Your task to perform on an android device: check the backup settings in the google photos Image 0: 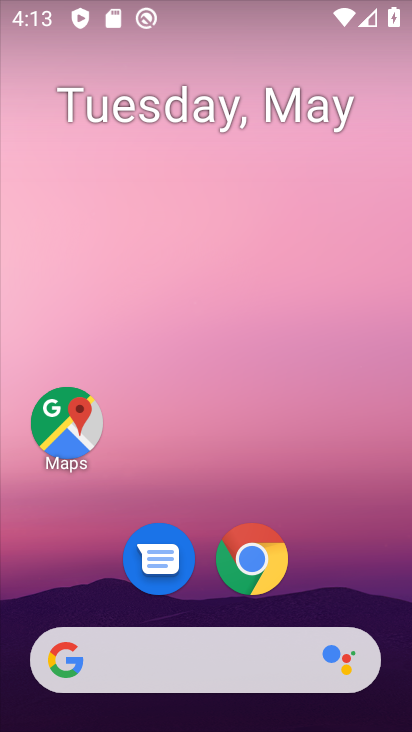
Step 0: press home button
Your task to perform on an android device: check the backup settings in the google photos Image 1: 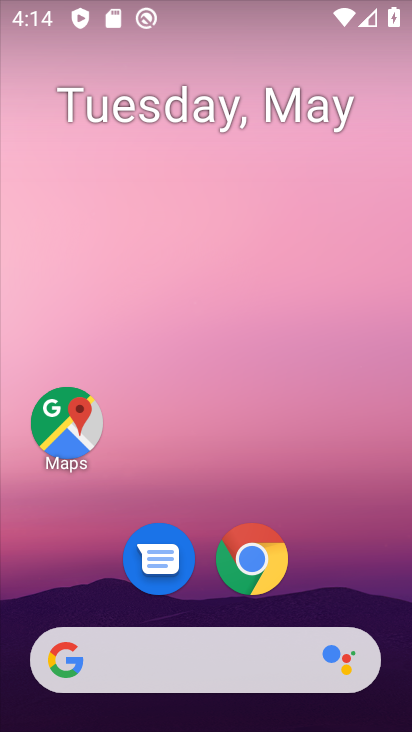
Step 1: drag from (334, 519) to (282, 99)
Your task to perform on an android device: check the backup settings in the google photos Image 2: 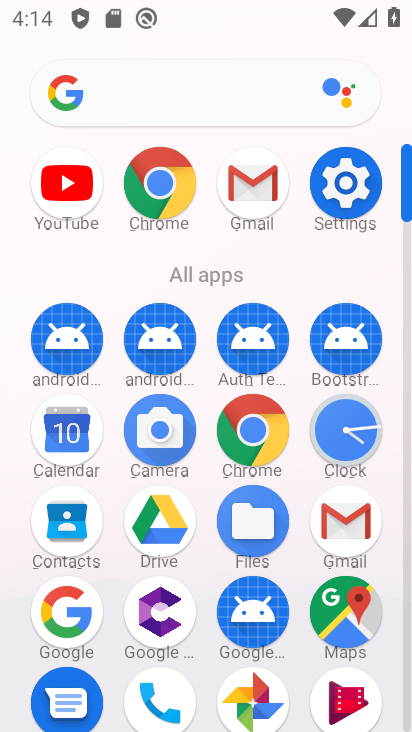
Step 2: drag from (203, 645) to (194, 361)
Your task to perform on an android device: check the backup settings in the google photos Image 3: 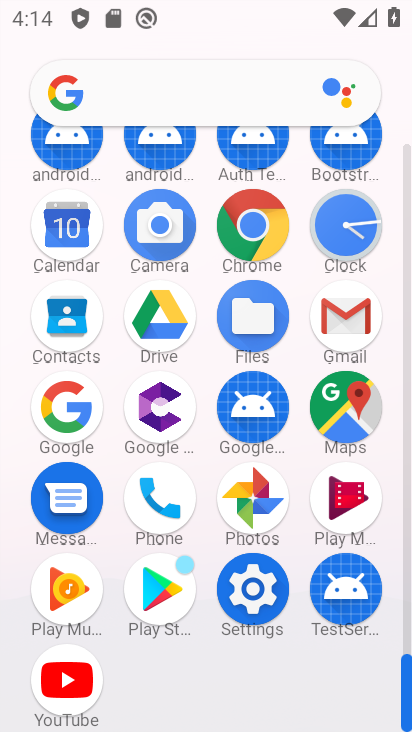
Step 3: click (242, 496)
Your task to perform on an android device: check the backup settings in the google photos Image 4: 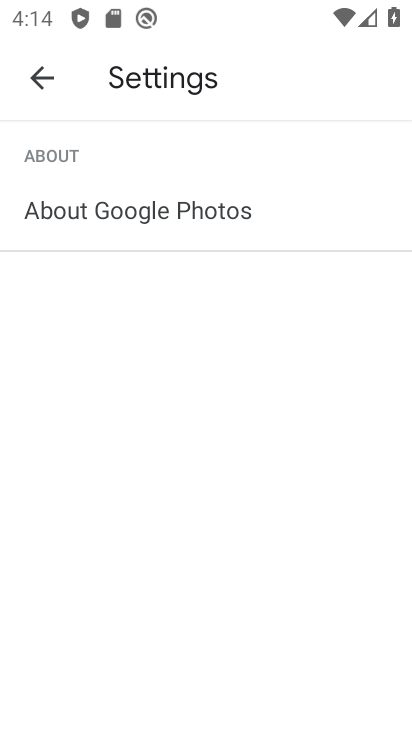
Step 4: click (46, 84)
Your task to perform on an android device: check the backup settings in the google photos Image 5: 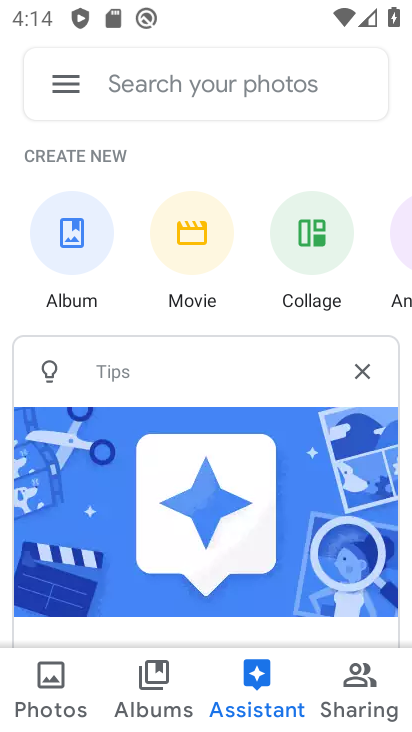
Step 5: click (52, 77)
Your task to perform on an android device: check the backup settings in the google photos Image 6: 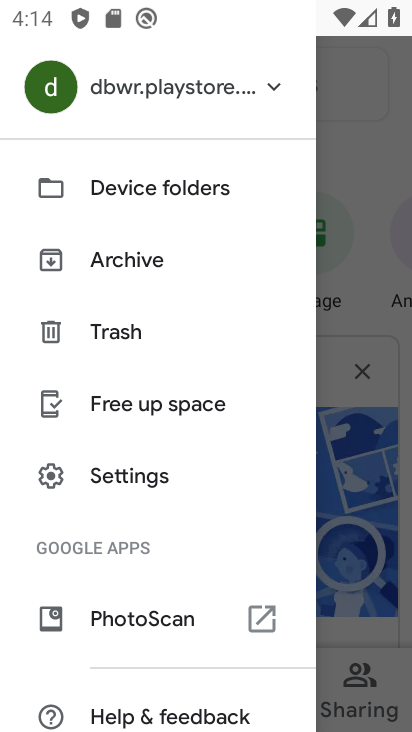
Step 6: click (119, 481)
Your task to perform on an android device: check the backup settings in the google photos Image 7: 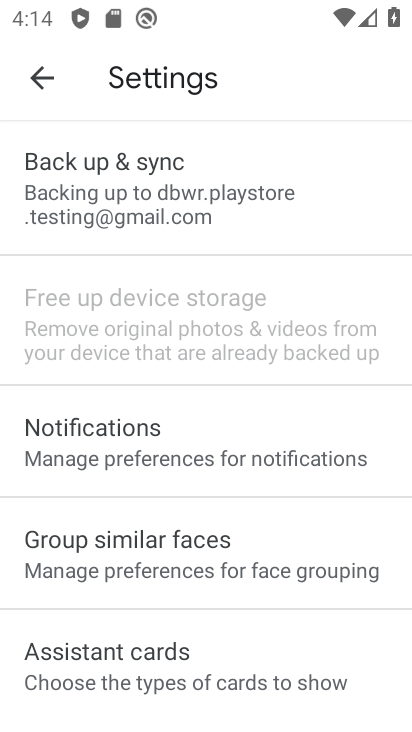
Step 7: click (171, 194)
Your task to perform on an android device: check the backup settings in the google photos Image 8: 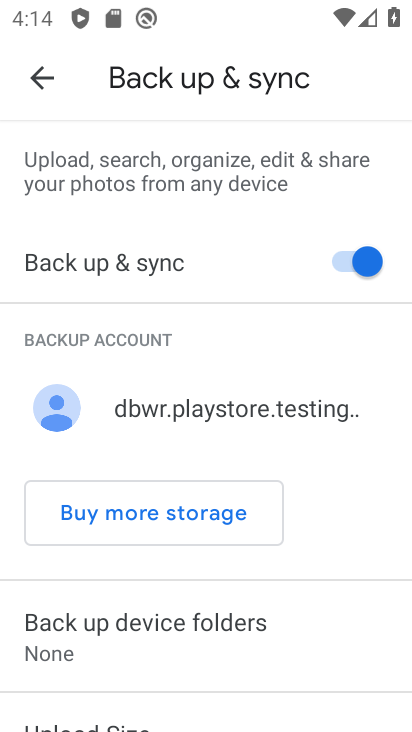
Step 8: task complete